Your task to perform on an android device: remove spam from my inbox in the gmail app Image 0: 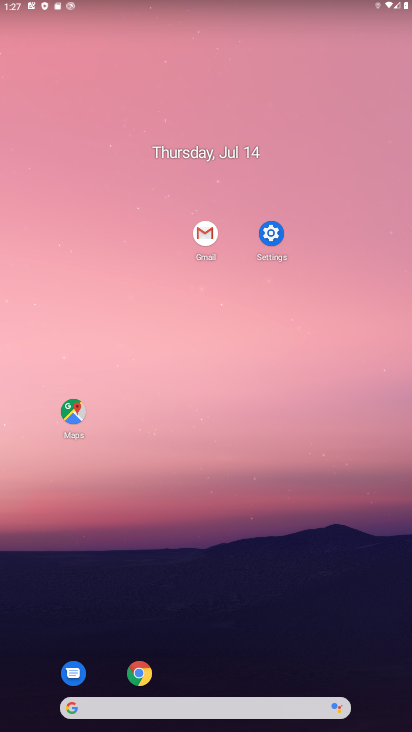
Step 0: click (199, 244)
Your task to perform on an android device: remove spam from my inbox in the gmail app Image 1: 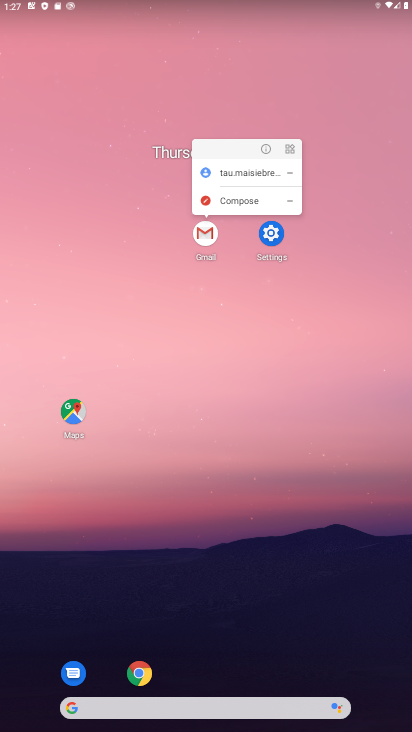
Step 1: click (194, 231)
Your task to perform on an android device: remove spam from my inbox in the gmail app Image 2: 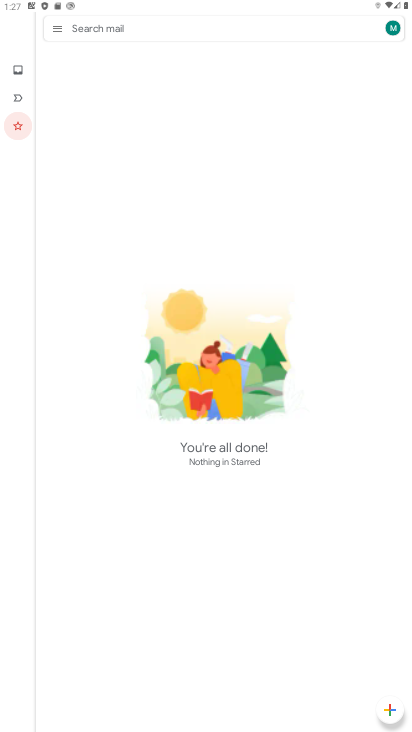
Step 2: click (53, 32)
Your task to perform on an android device: remove spam from my inbox in the gmail app Image 3: 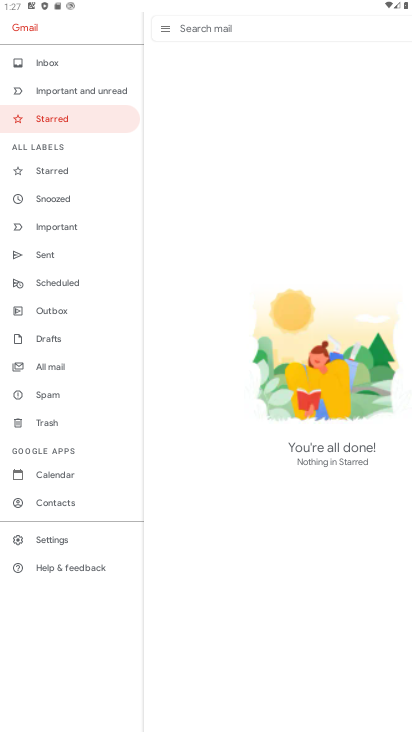
Step 3: click (62, 396)
Your task to perform on an android device: remove spam from my inbox in the gmail app Image 4: 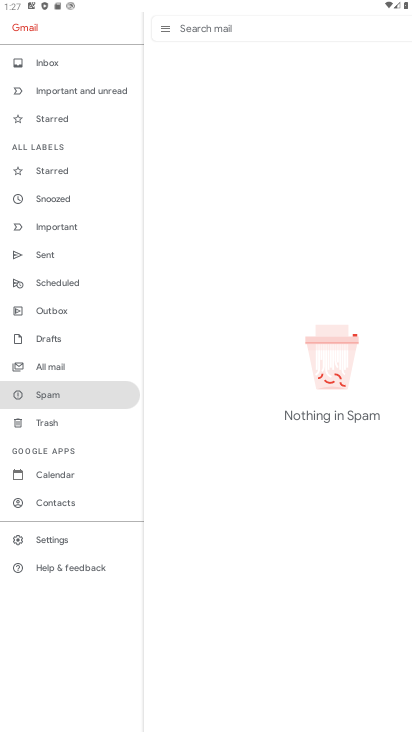
Step 4: task complete